Your task to perform on an android device: Do I have any events tomorrow? Image 0: 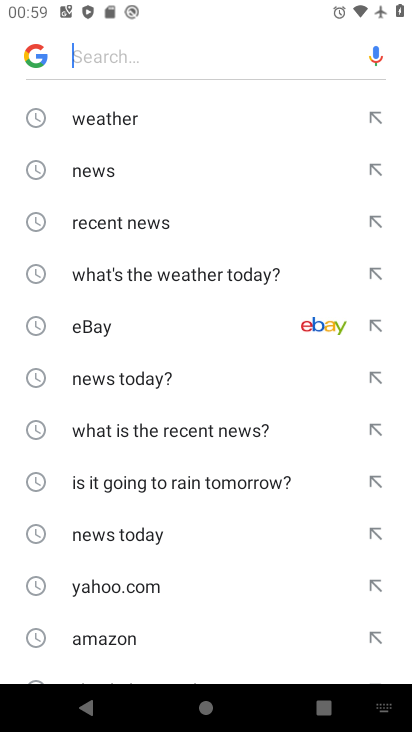
Step 0: press home button
Your task to perform on an android device: Do I have any events tomorrow? Image 1: 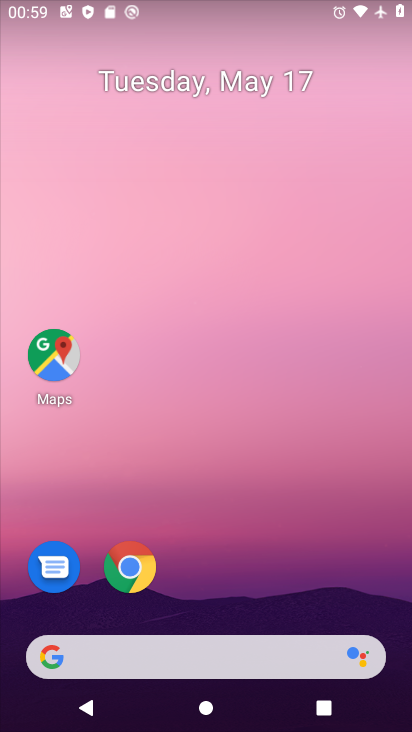
Step 1: drag from (219, 513) to (219, 121)
Your task to perform on an android device: Do I have any events tomorrow? Image 2: 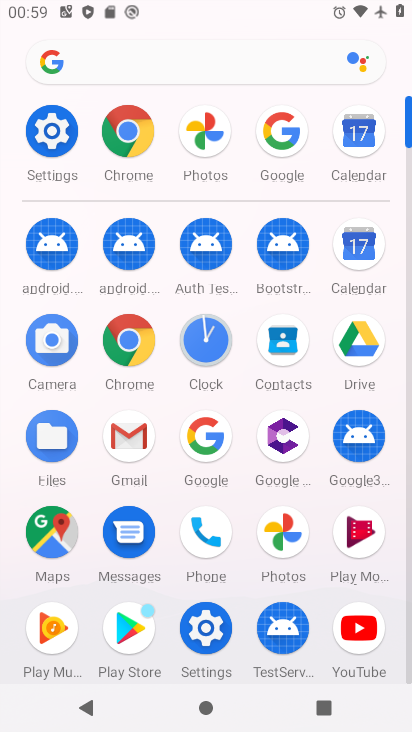
Step 2: click (356, 252)
Your task to perform on an android device: Do I have any events tomorrow? Image 3: 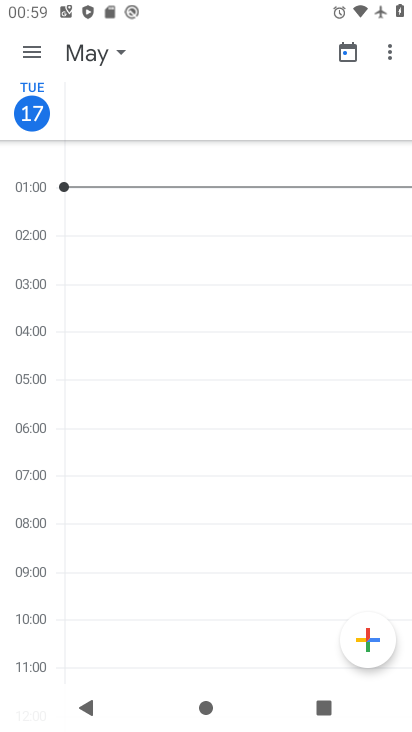
Step 3: task complete